Your task to perform on an android device: turn on improve location accuracy Image 0: 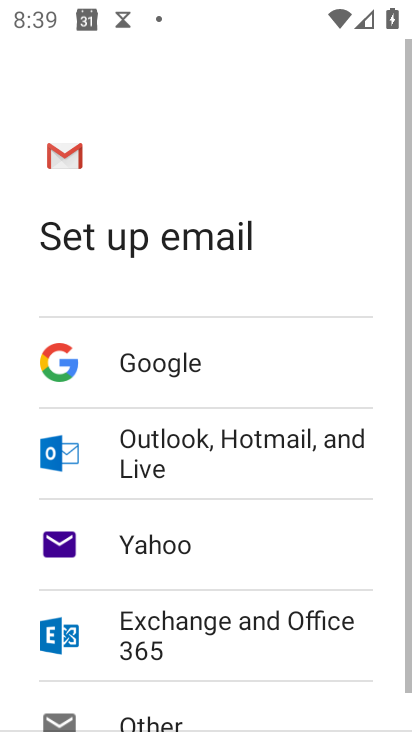
Step 0: press home button
Your task to perform on an android device: turn on improve location accuracy Image 1: 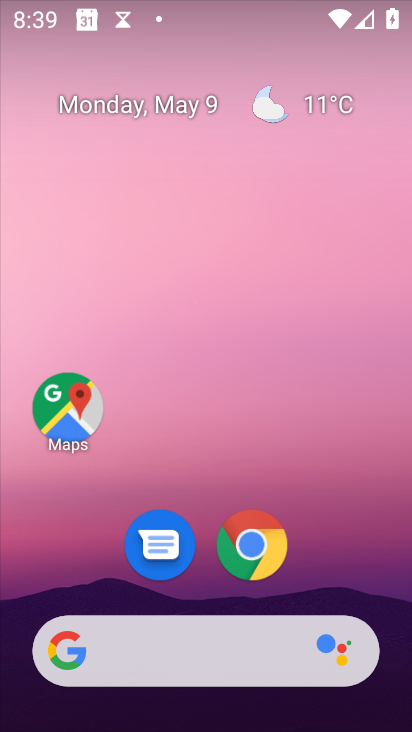
Step 1: drag from (237, 726) to (237, 177)
Your task to perform on an android device: turn on improve location accuracy Image 2: 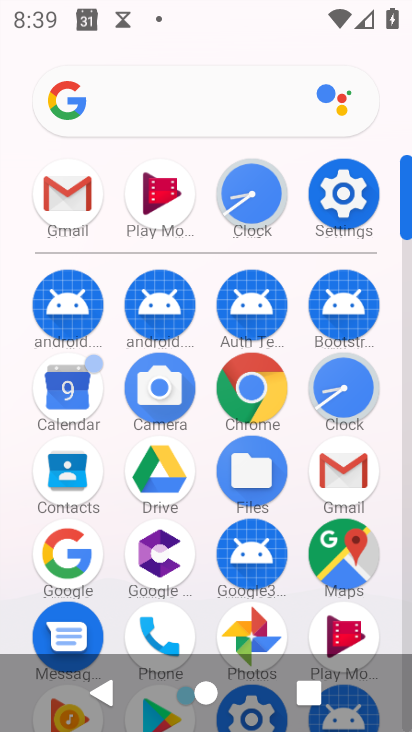
Step 2: click (339, 196)
Your task to perform on an android device: turn on improve location accuracy Image 3: 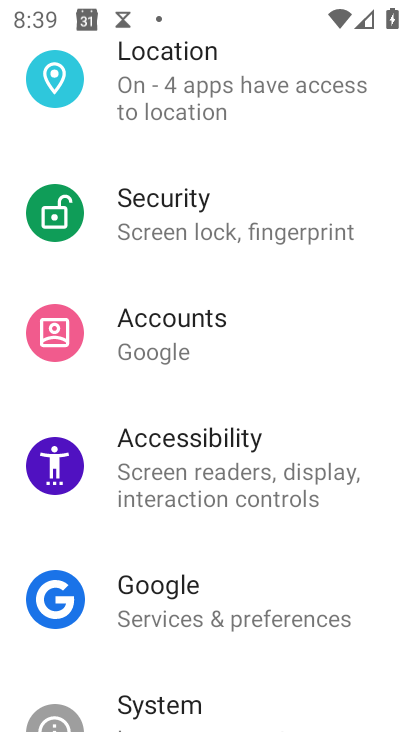
Step 3: drag from (346, 151) to (374, 610)
Your task to perform on an android device: turn on improve location accuracy Image 4: 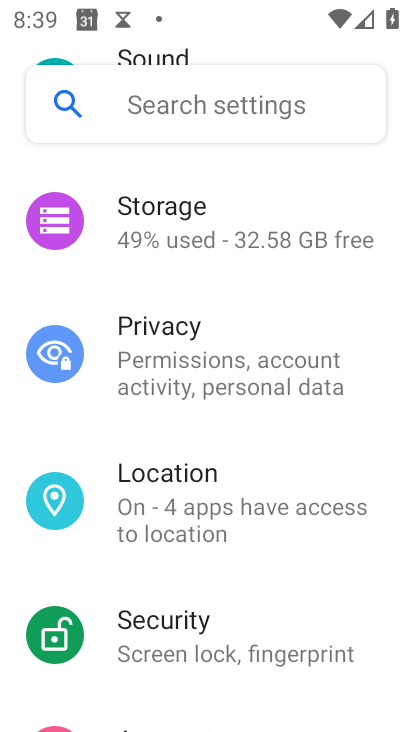
Step 4: drag from (372, 186) to (404, 559)
Your task to perform on an android device: turn on improve location accuracy Image 5: 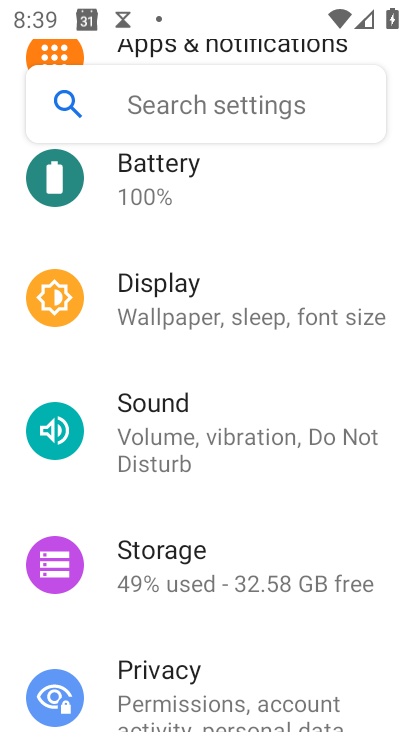
Step 5: drag from (323, 184) to (325, 548)
Your task to perform on an android device: turn on improve location accuracy Image 6: 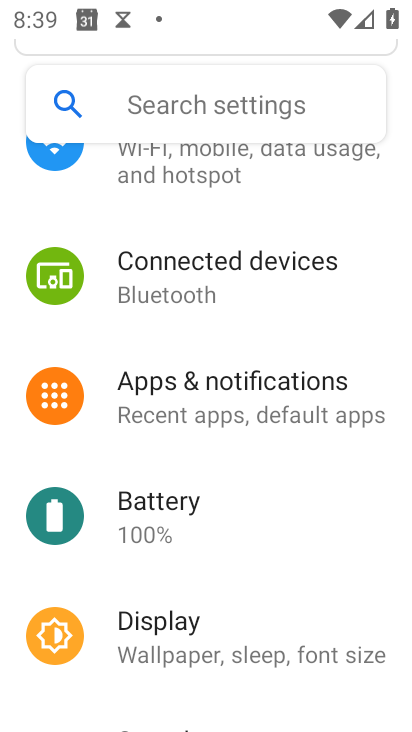
Step 6: drag from (341, 211) to (350, 579)
Your task to perform on an android device: turn on improve location accuracy Image 7: 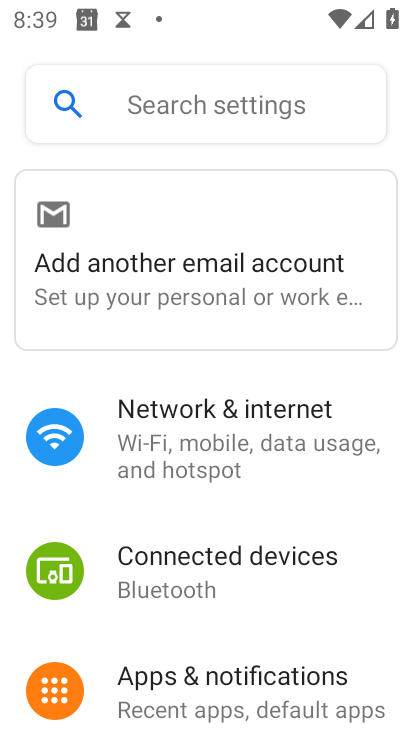
Step 7: drag from (205, 638) to (239, 274)
Your task to perform on an android device: turn on improve location accuracy Image 8: 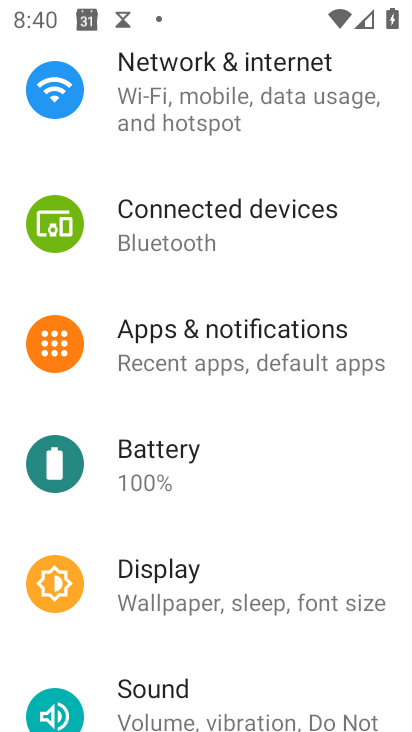
Step 8: drag from (234, 403) to (234, 254)
Your task to perform on an android device: turn on improve location accuracy Image 9: 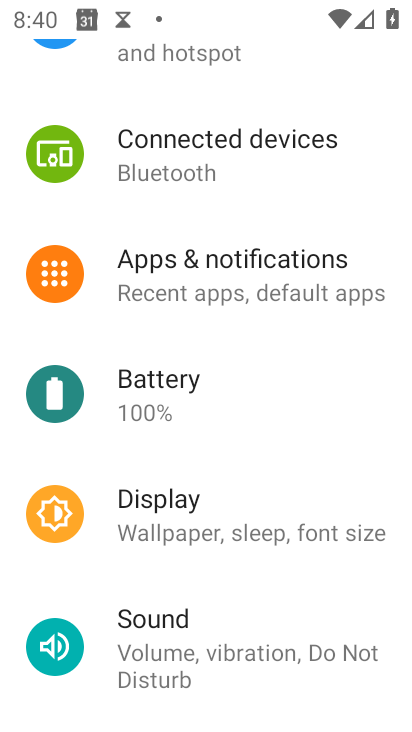
Step 9: drag from (254, 682) to (259, 339)
Your task to perform on an android device: turn on improve location accuracy Image 10: 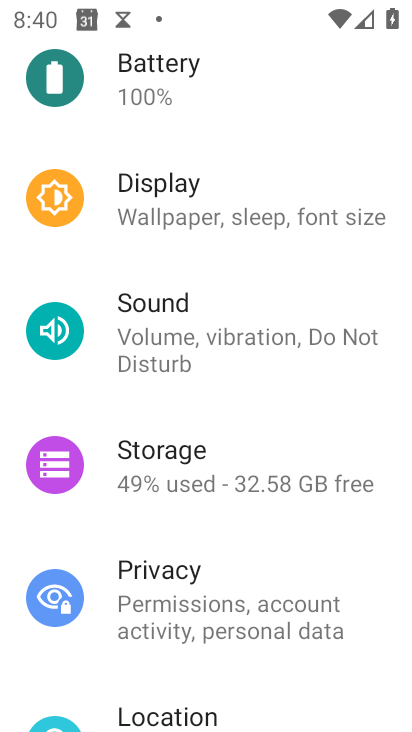
Step 10: drag from (255, 654) to (255, 405)
Your task to perform on an android device: turn on improve location accuracy Image 11: 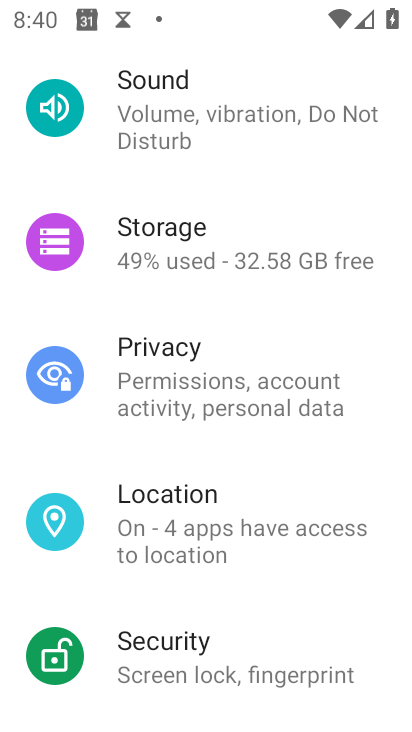
Step 11: click (168, 517)
Your task to perform on an android device: turn on improve location accuracy Image 12: 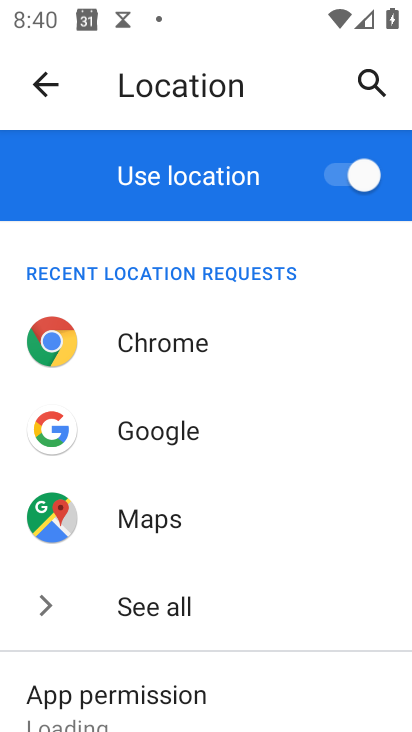
Step 12: drag from (293, 692) to (293, 354)
Your task to perform on an android device: turn on improve location accuracy Image 13: 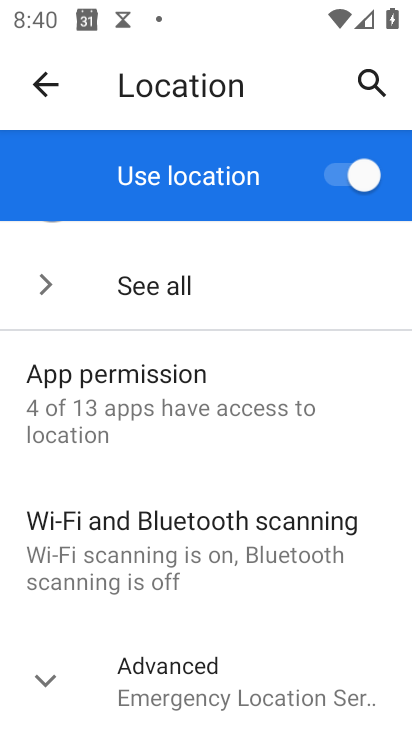
Step 13: click (170, 678)
Your task to perform on an android device: turn on improve location accuracy Image 14: 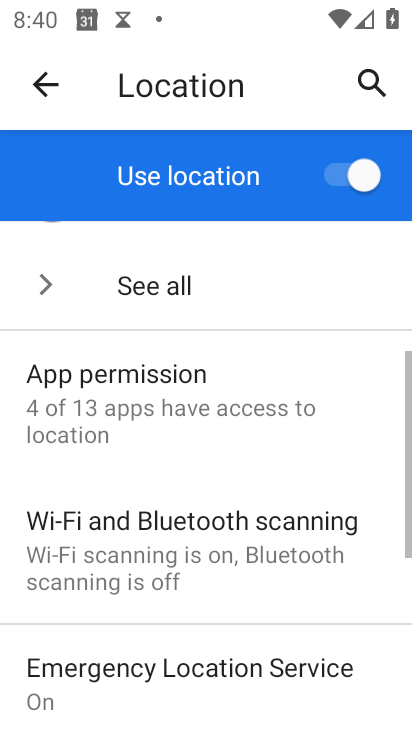
Step 14: drag from (251, 705) to (273, 380)
Your task to perform on an android device: turn on improve location accuracy Image 15: 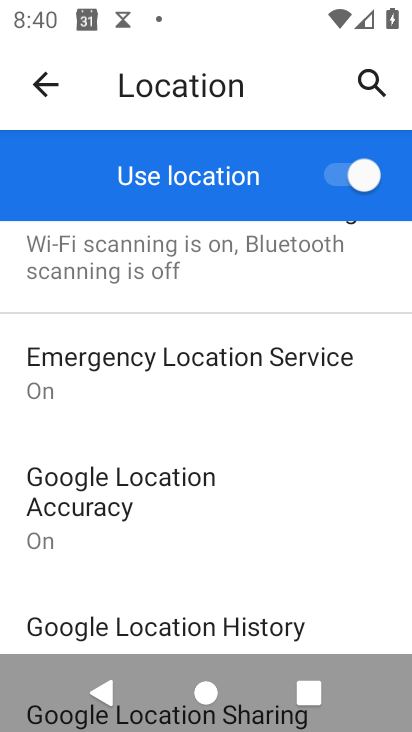
Step 15: click (126, 483)
Your task to perform on an android device: turn on improve location accuracy Image 16: 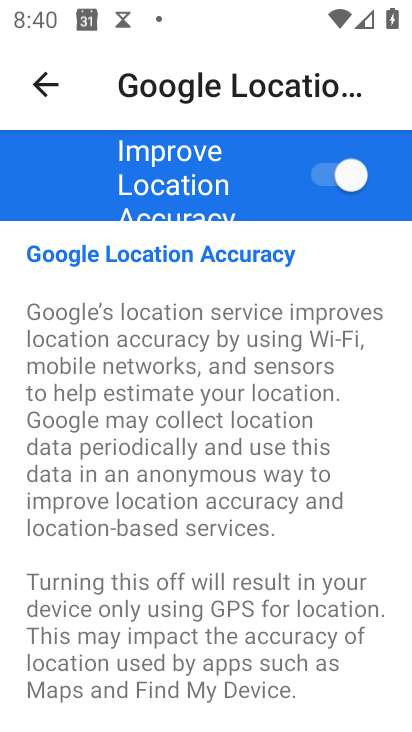
Step 16: task complete